Your task to perform on an android device: What's the weather? Image 0: 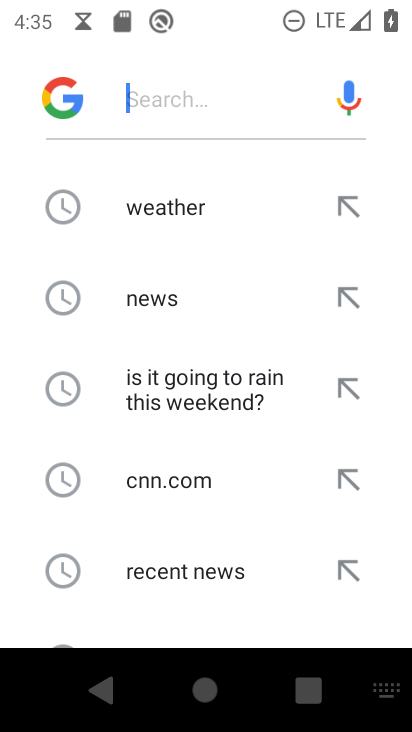
Step 0: click (173, 208)
Your task to perform on an android device: What's the weather? Image 1: 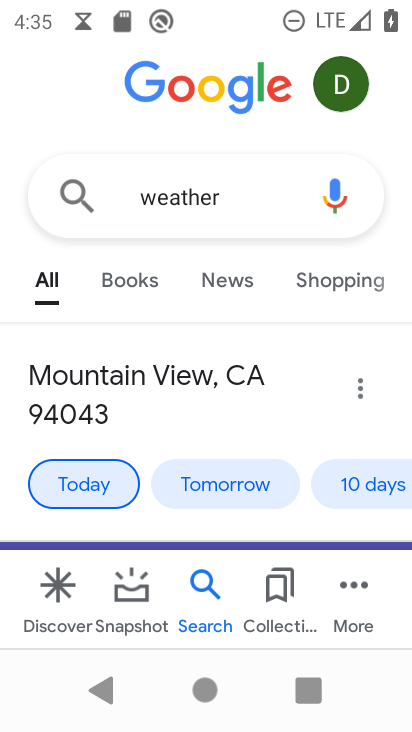
Step 1: task complete